Your task to perform on an android device: visit the assistant section in the google photos Image 0: 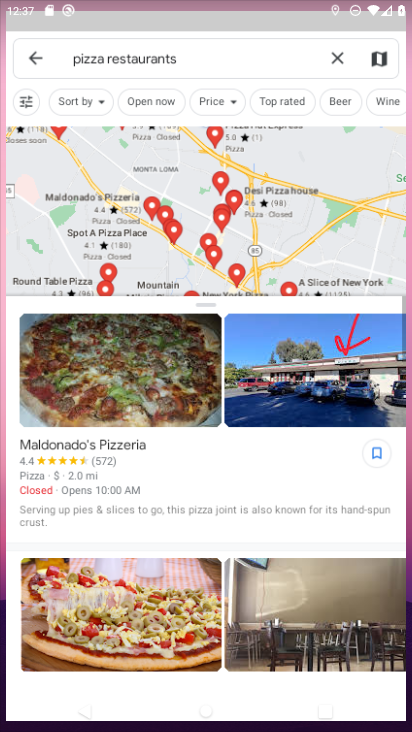
Step 0: drag from (46, 698) to (321, 43)
Your task to perform on an android device: visit the assistant section in the google photos Image 1: 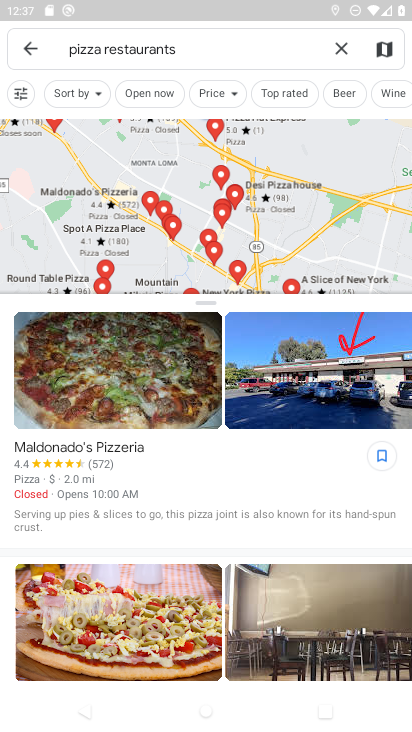
Step 1: press home button
Your task to perform on an android device: visit the assistant section in the google photos Image 2: 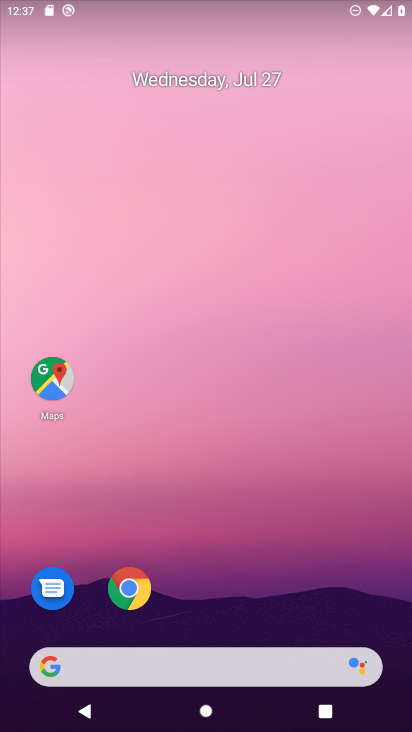
Step 2: drag from (83, 583) to (292, 177)
Your task to perform on an android device: visit the assistant section in the google photos Image 3: 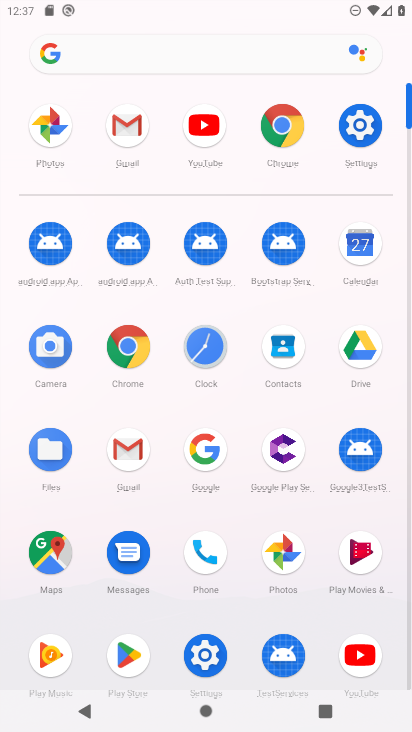
Step 3: click (294, 560)
Your task to perform on an android device: visit the assistant section in the google photos Image 4: 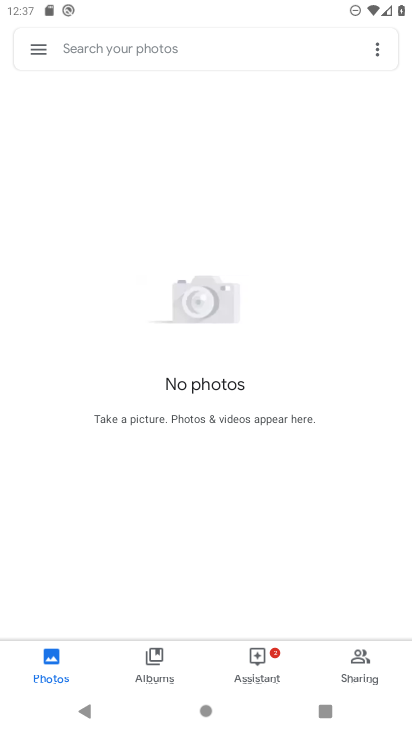
Step 4: click (246, 667)
Your task to perform on an android device: visit the assistant section in the google photos Image 5: 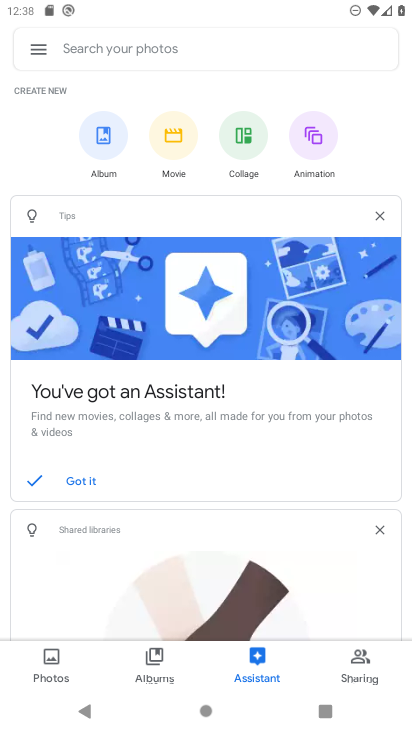
Step 5: task complete